Your task to perform on an android device: Check the weather Image 0: 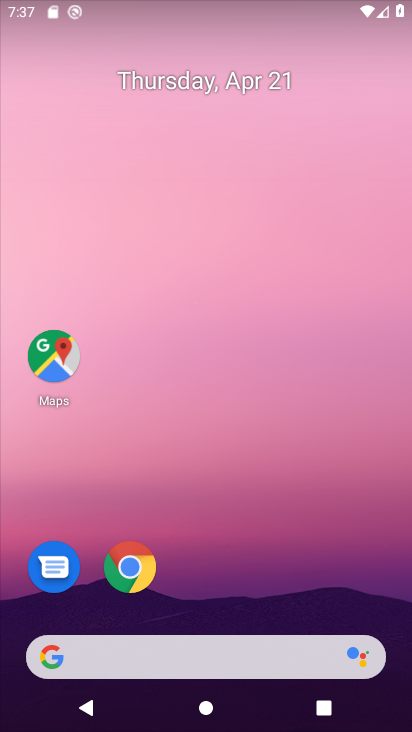
Step 0: drag from (243, 424) to (237, 0)
Your task to perform on an android device: Check the weather Image 1: 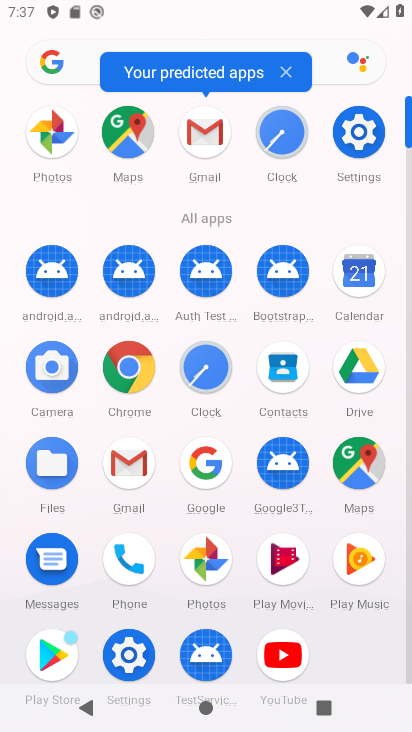
Step 1: click (206, 462)
Your task to perform on an android device: Check the weather Image 2: 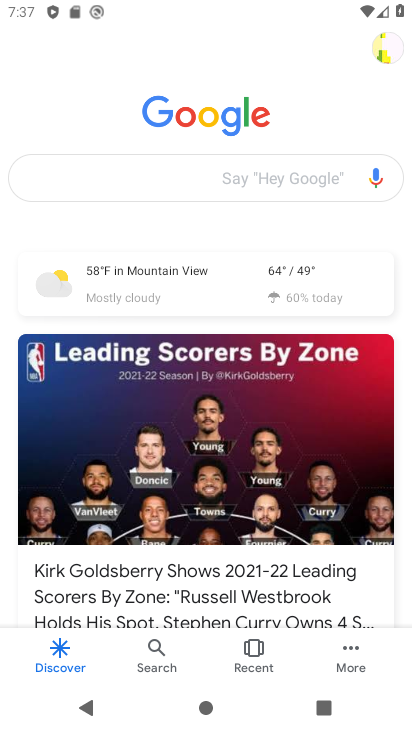
Step 2: click (280, 285)
Your task to perform on an android device: Check the weather Image 3: 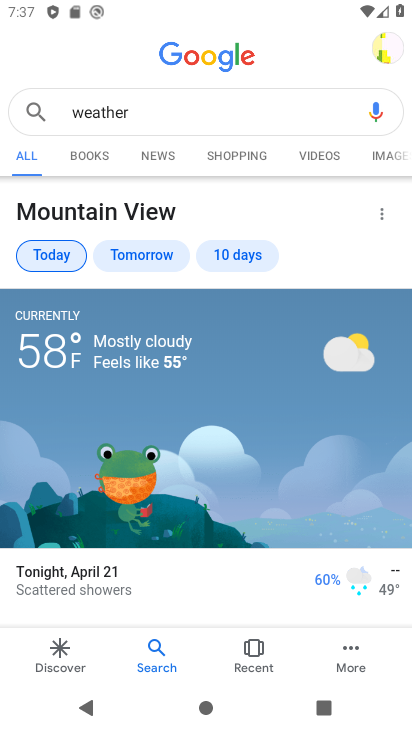
Step 3: task complete